Your task to perform on an android device: allow notifications from all sites in the chrome app Image 0: 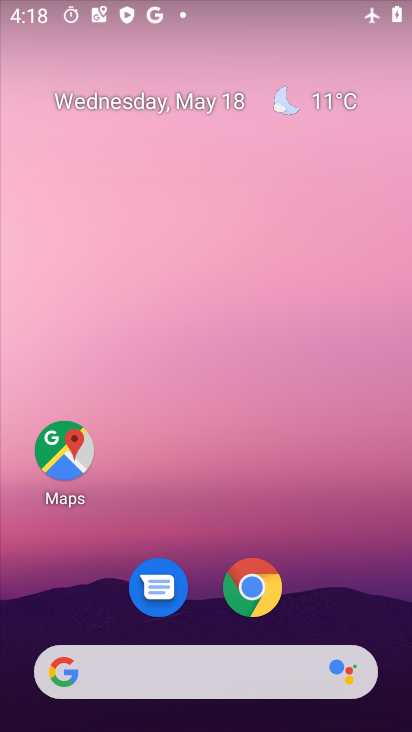
Step 0: drag from (274, 655) to (274, 59)
Your task to perform on an android device: allow notifications from all sites in the chrome app Image 1: 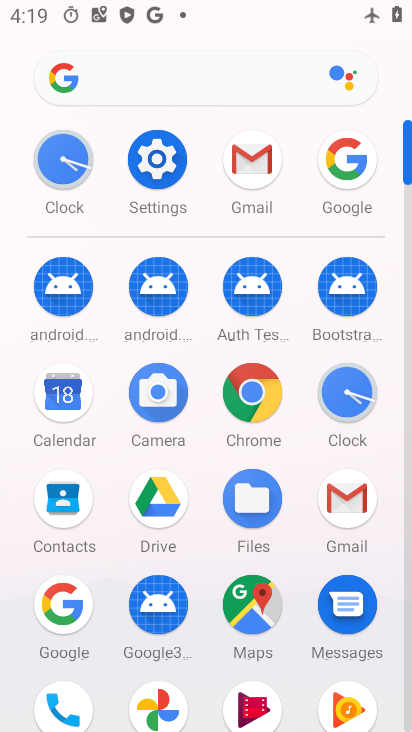
Step 1: click (266, 421)
Your task to perform on an android device: allow notifications from all sites in the chrome app Image 2: 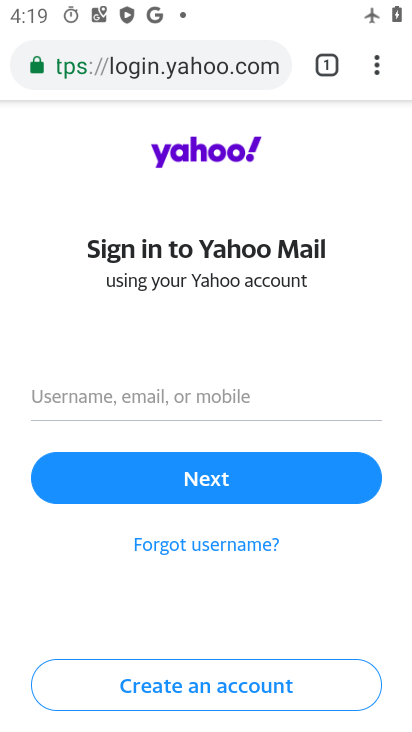
Step 2: click (379, 80)
Your task to perform on an android device: allow notifications from all sites in the chrome app Image 3: 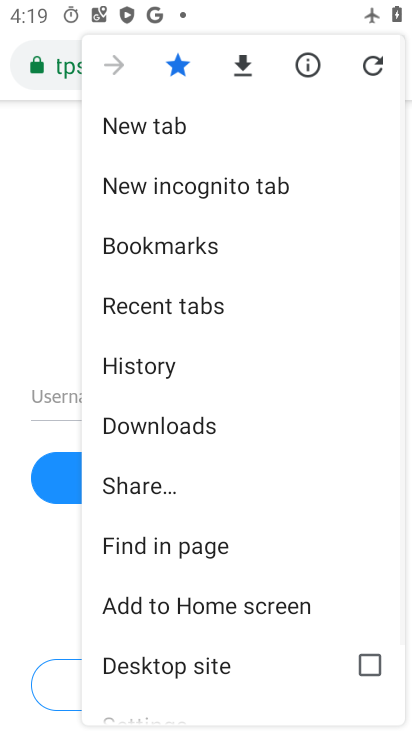
Step 3: drag from (234, 363) to (289, 88)
Your task to perform on an android device: allow notifications from all sites in the chrome app Image 4: 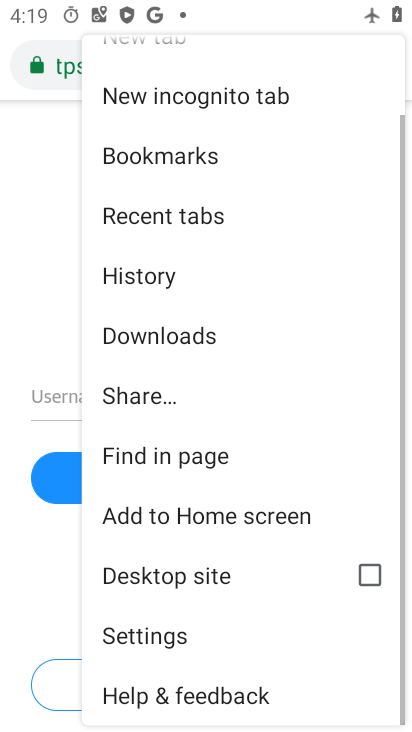
Step 4: click (168, 640)
Your task to perform on an android device: allow notifications from all sites in the chrome app Image 5: 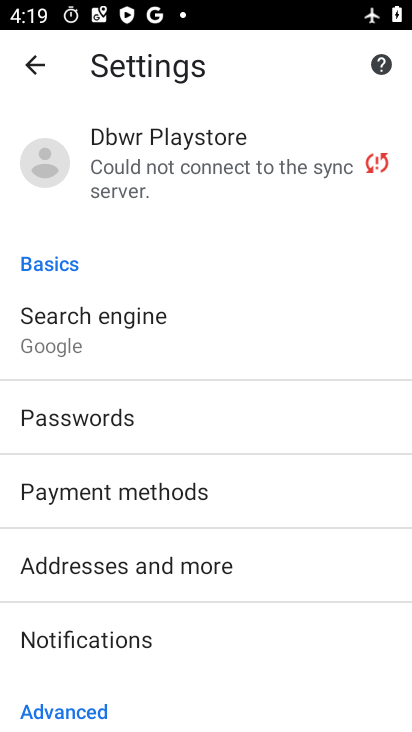
Step 5: drag from (185, 482) to (244, 243)
Your task to perform on an android device: allow notifications from all sites in the chrome app Image 6: 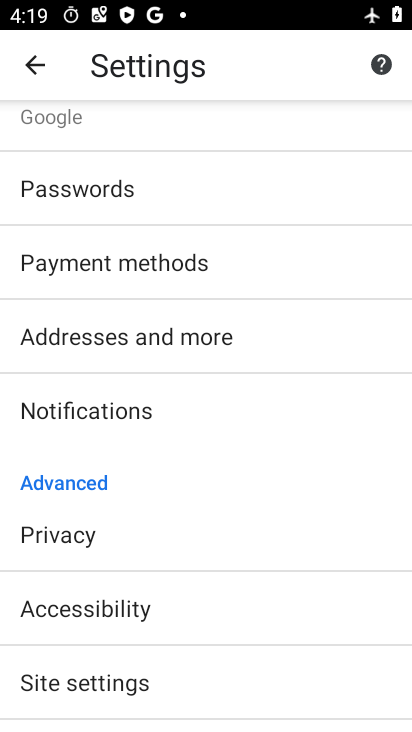
Step 6: click (146, 415)
Your task to perform on an android device: allow notifications from all sites in the chrome app Image 7: 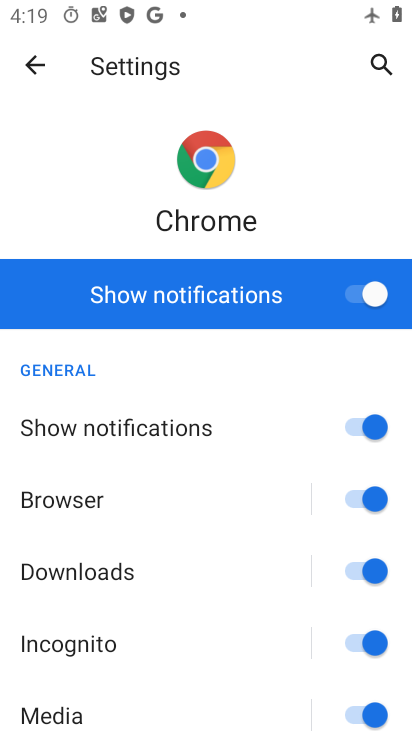
Step 7: task complete